Your task to perform on an android device: turn off sleep mode Image 0: 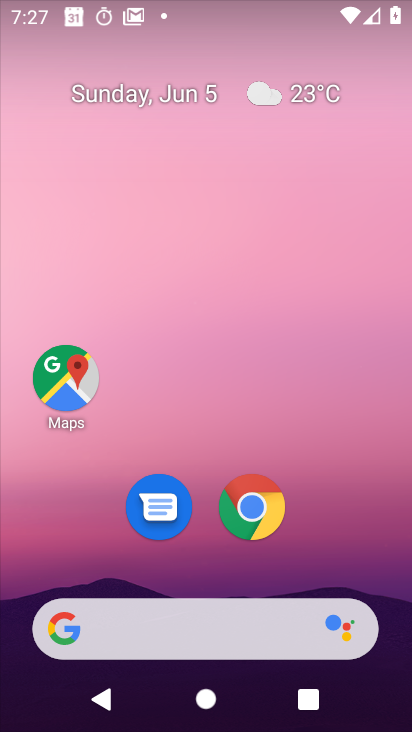
Step 0: drag from (267, 657) to (155, 91)
Your task to perform on an android device: turn off sleep mode Image 1: 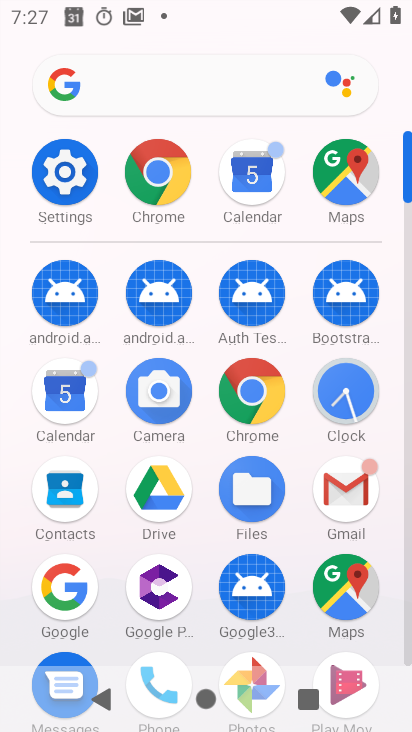
Step 1: click (67, 154)
Your task to perform on an android device: turn off sleep mode Image 2: 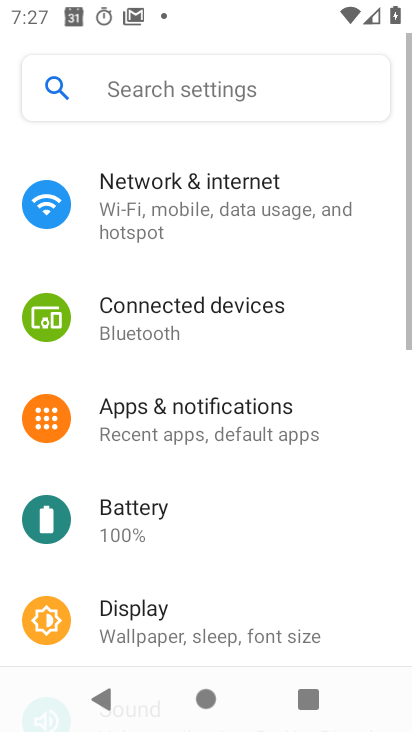
Step 2: click (193, 89)
Your task to perform on an android device: turn off sleep mode Image 3: 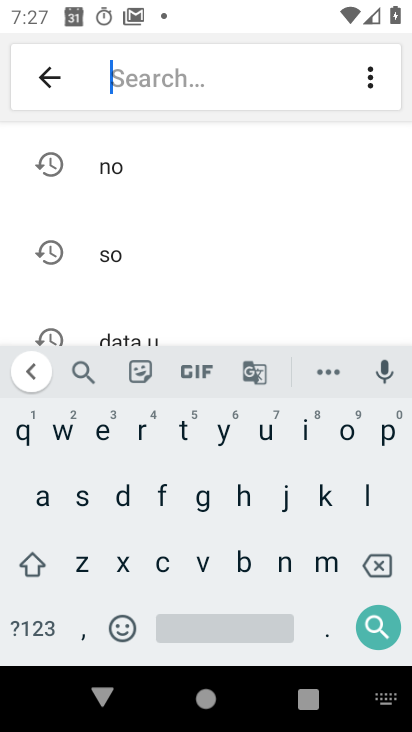
Step 3: click (79, 492)
Your task to perform on an android device: turn off sleep mode Image 4: 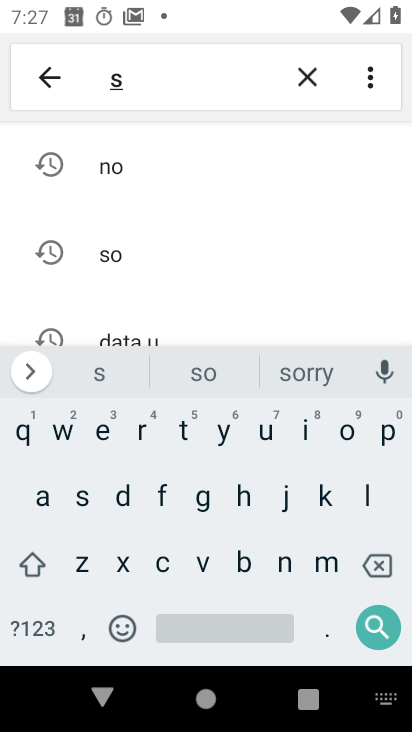
Step 4: click (359, 495)
Your task to perform on an android device: turn off sleep mode Image 5: 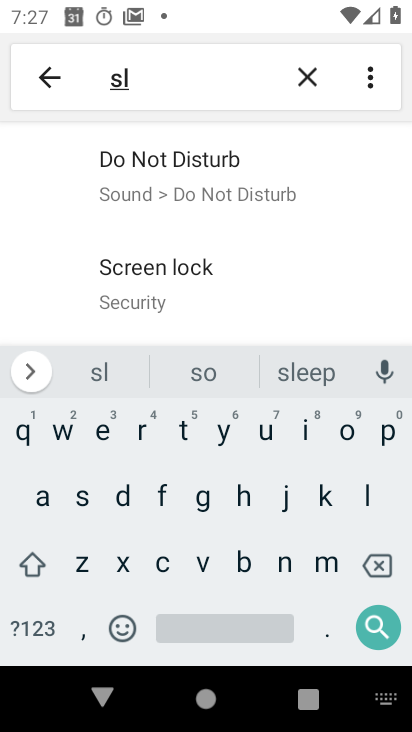
Step 5: click (179, 171)
Your task to perform on an android device: turn off sleep mode Image 6: 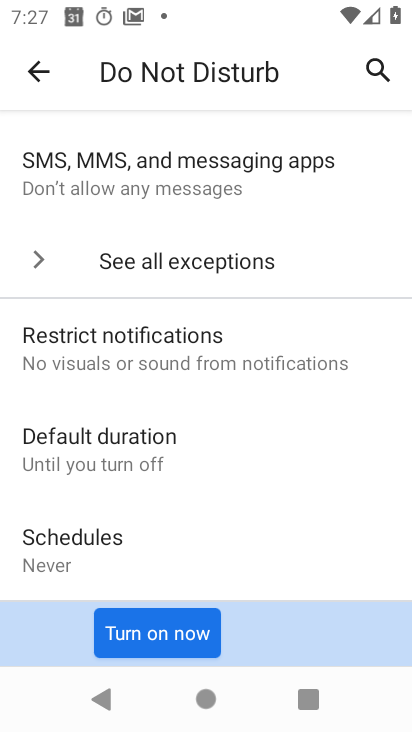
Step 6: click (163, 629)
Your task to perform on an android device: turn off sleep mode Image 7: 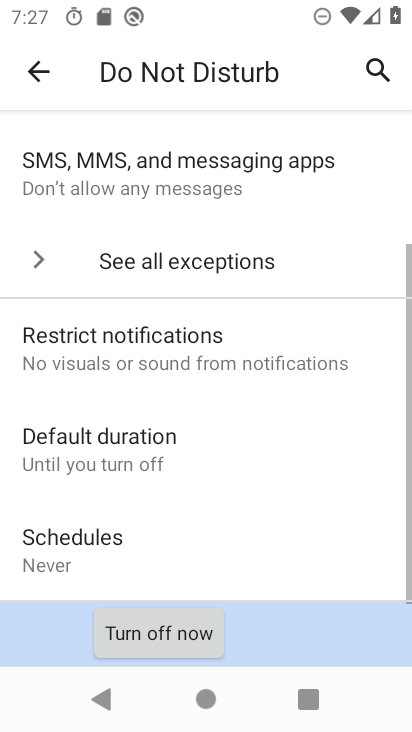
Step 7: click (162, 629)
Your task to perform on an android device: turn off sleep mode Image 8: 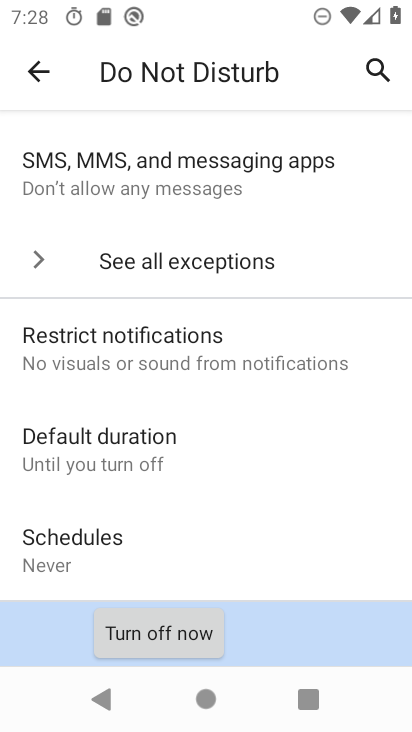
Step 8: click (198, 636)
Your task to perform on an android device: turn off sleep mode Image 9: 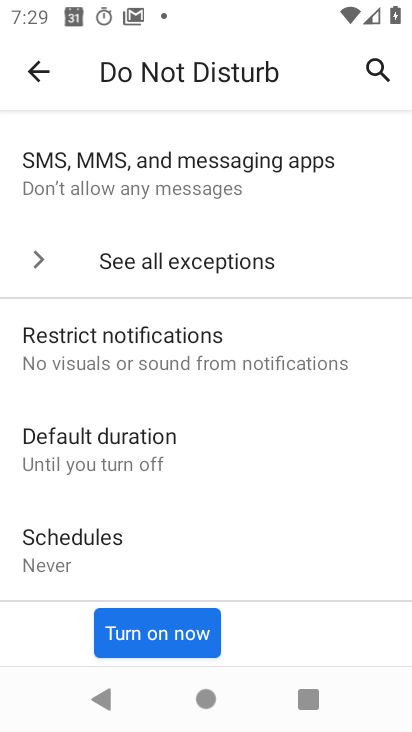
Step 9: task complete